Your task to perform on an android device: Open accessibility settings Image 0: 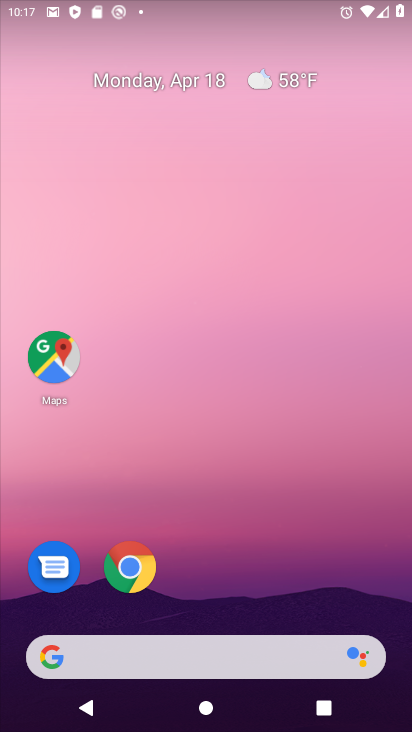
Step 0: drag from (205, 721) to (207, 50)
Your task to perform on an android device: Open accessibility settings Image 1: 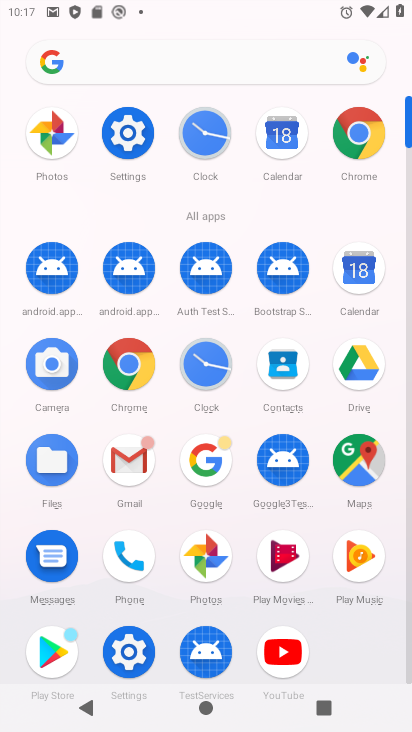
Step 1: click (125, 136)
Your task to perform on an android device: Open accessibility settings Image 2: 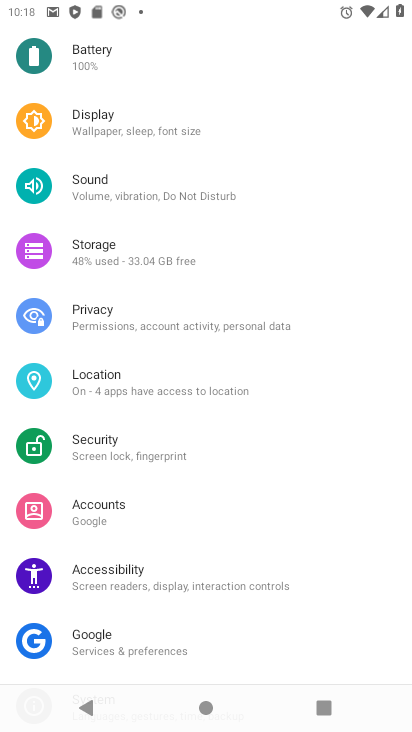
Step 2: click (113, 573)
Your task to perform on an android device: Open accessibility settings Image 3: 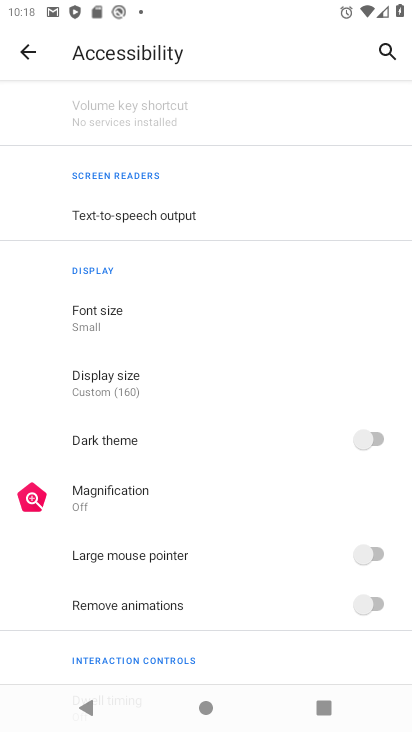
Step 3: task complete